Your task to perform on an android device: turn off location history Image 0: 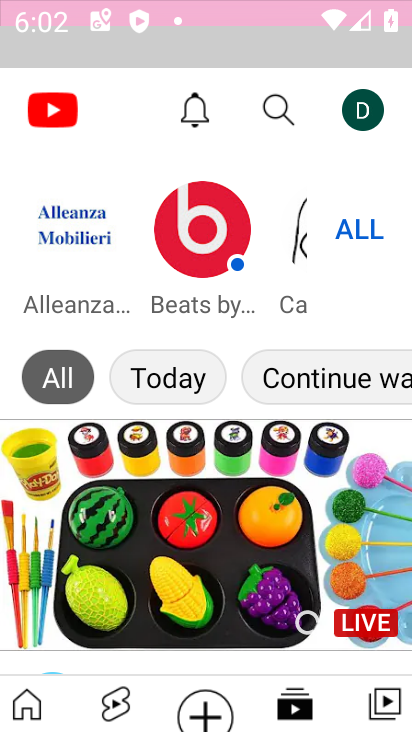
Step 0: drag from (210, 532) to (206, 84)
Your task to perform on an android device: turn off location history Image 1: 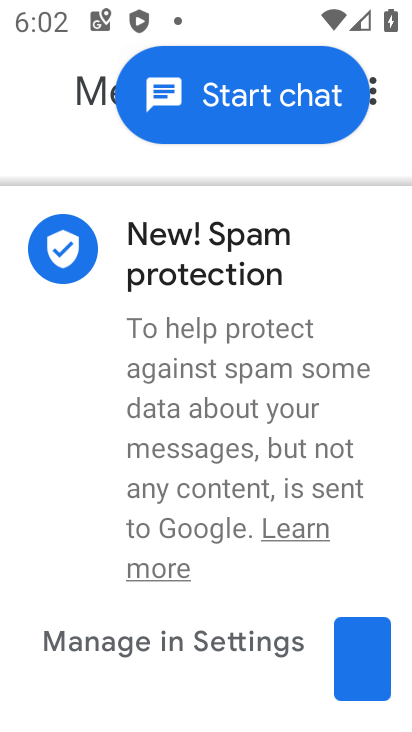
Step 1: press home button
Your task to perform on an android device: turn off location history Image 2: 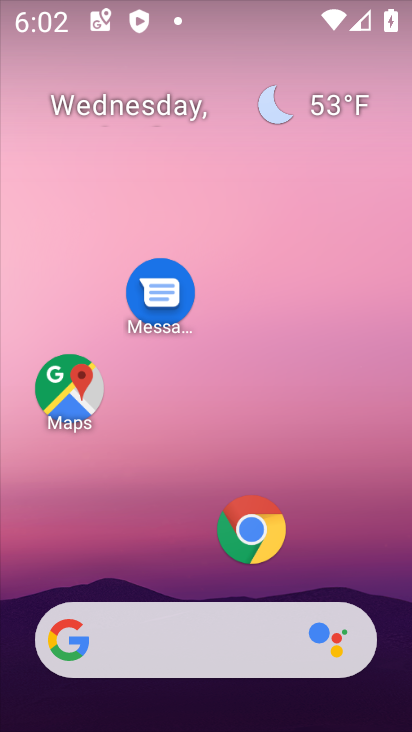
Step 2: drag from (183, 574) to (184, 166)
Your task to perform on an android device: turn off location history Image 3: 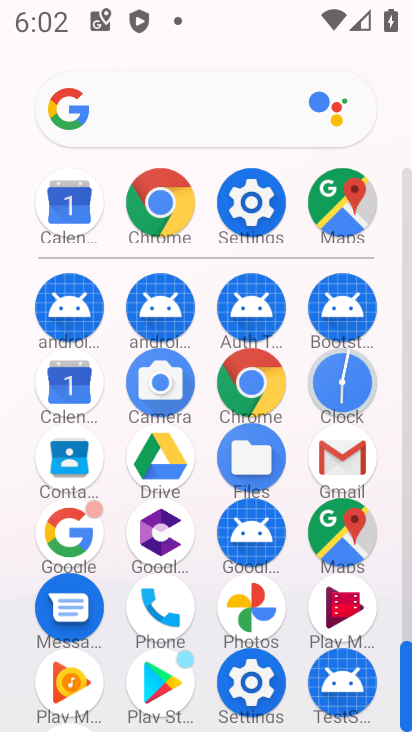
Step 3: click (254, 216)
Your task to perform on an android device: turn off location history Image 4: 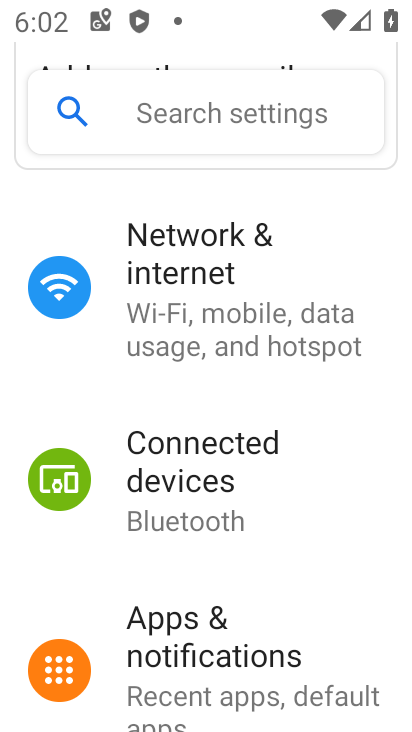
Step 4: drag from (247, 530) to (245, 181)
Your task to perform on an android device: turn off location history Image 5: 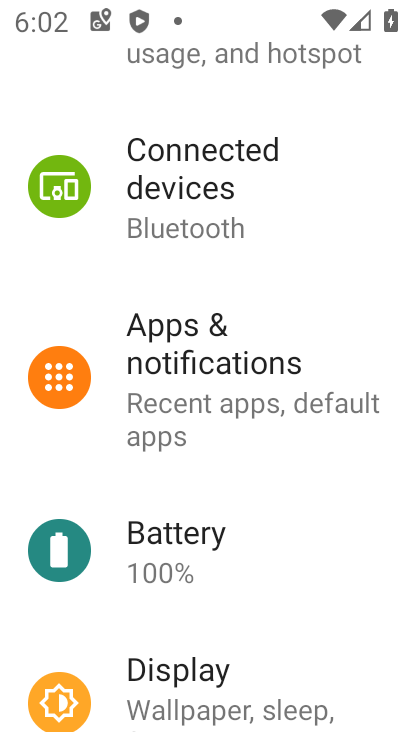
Step 5: drag from (243, 607) to (208, 234)
Your task to perform on an android device: turn off location history Image 6: 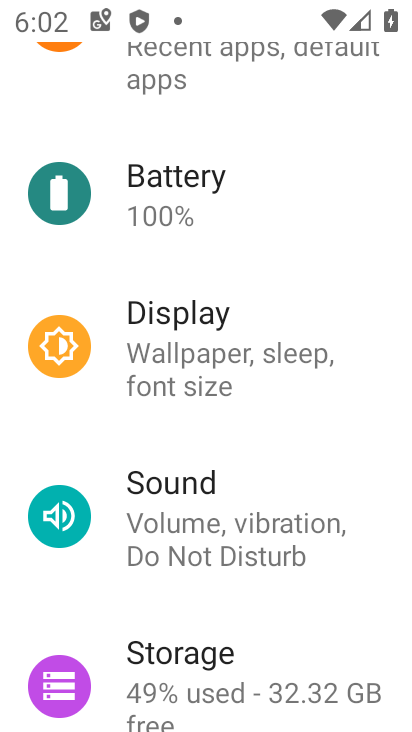
Step 6: drag from (225, 610) to (228, 281)
Your task to perform on an android device: turn off location history Image 7: 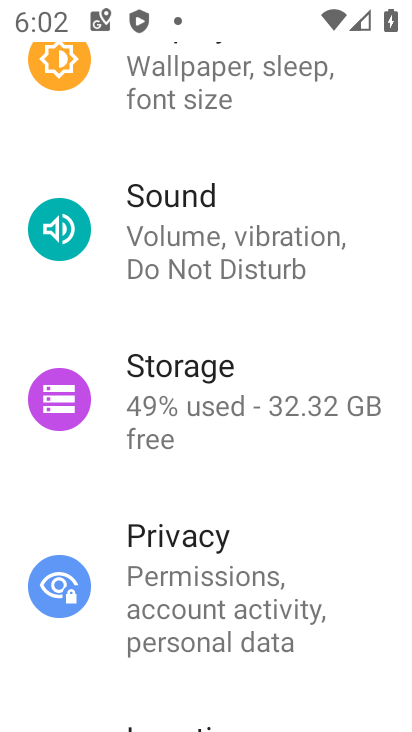
Step 7: drag from (193, 608) to (190, 247)
Your task to perform on an android device: turn off location history Image 8: 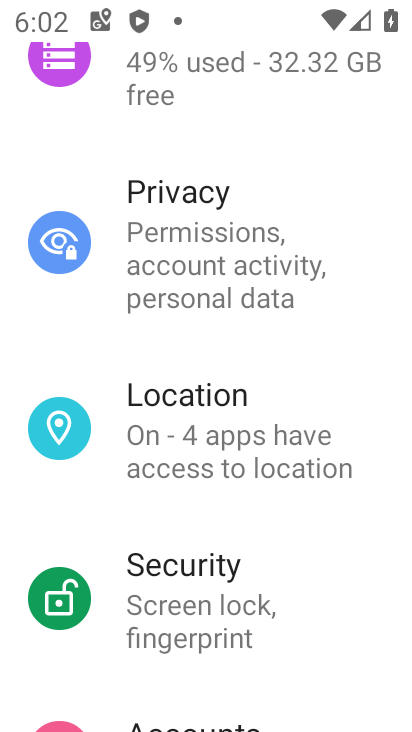
Step 8: click (213, 445)
Your task to perform on an android device: turn off location history Image 9: 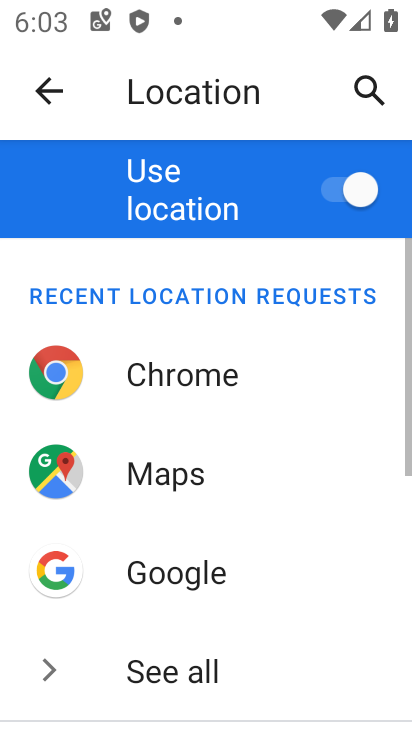
Step 9: drag from (213, 634) to (246, 364)
Your task to perform on an android device: turn off location history Image 10: 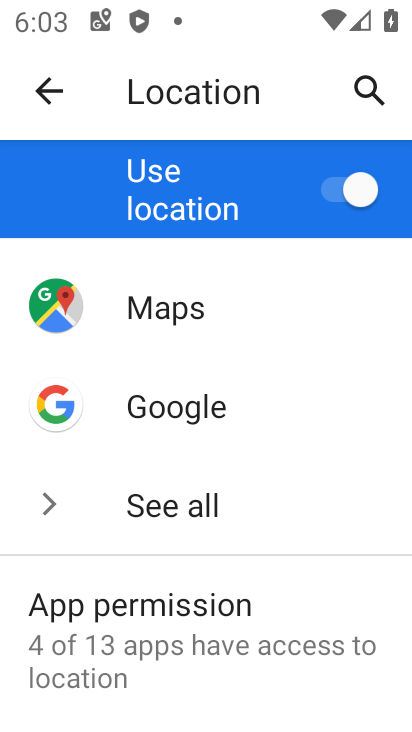
Step 10: drag from (223, 604) to (224, 249)
Your task to perform on an android device: turn off location history Image 11: 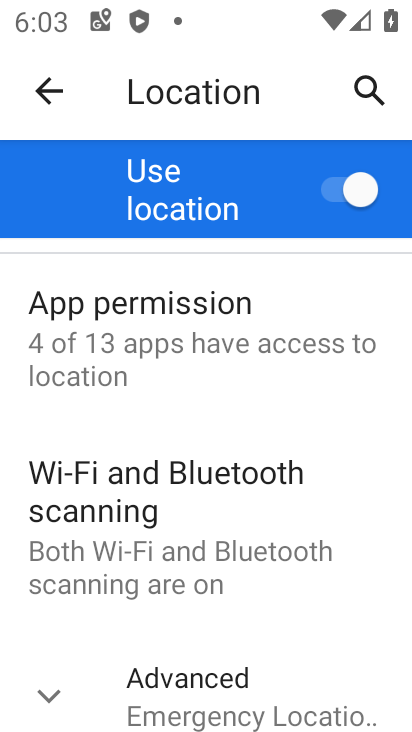
Step 11: drag from (216, 630) to (215, 254)
Your task to perform on an android device: turn off location history Image 12: 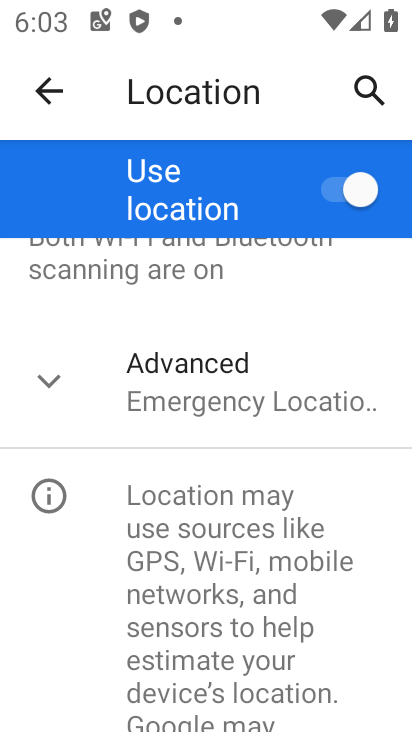
Step 12: click (178, 390)
Your task to perform on an android device: turn off location history Image 13: 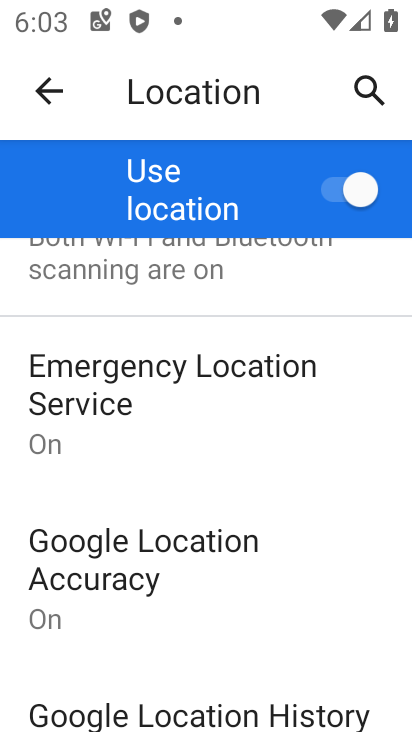
Step 13: drag from (194, 615) to (203, 312)
Your task to perform on an android device: turn off location history Image 14: 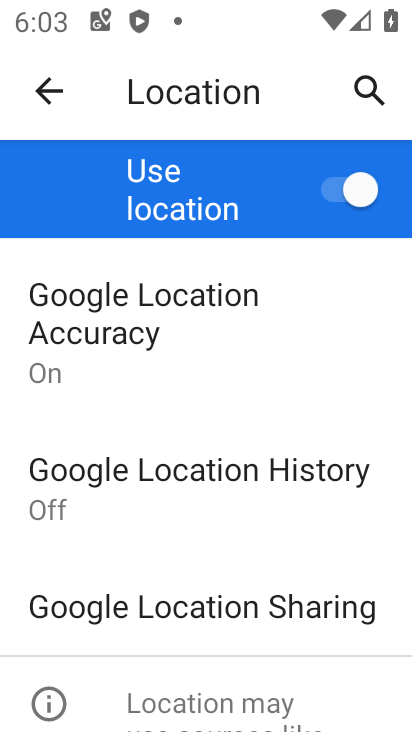
Step 14: click (220, 479)
Your task to perform on an android device: turn off location history Image 15: 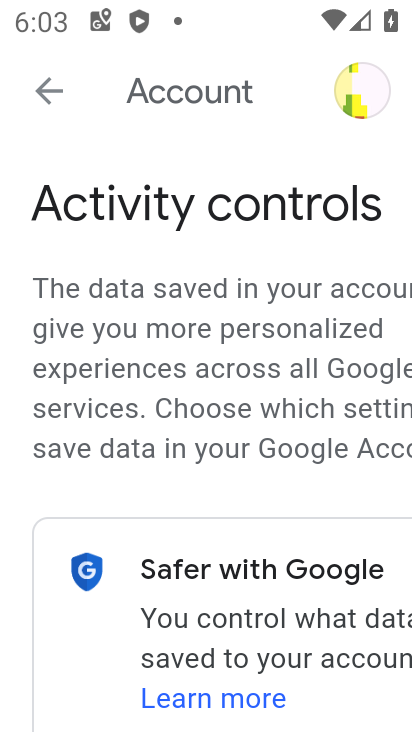
Step 15: drag from (256, 539) to (256, 260)
Your task to perform on an android device: turn off location history Image 16: 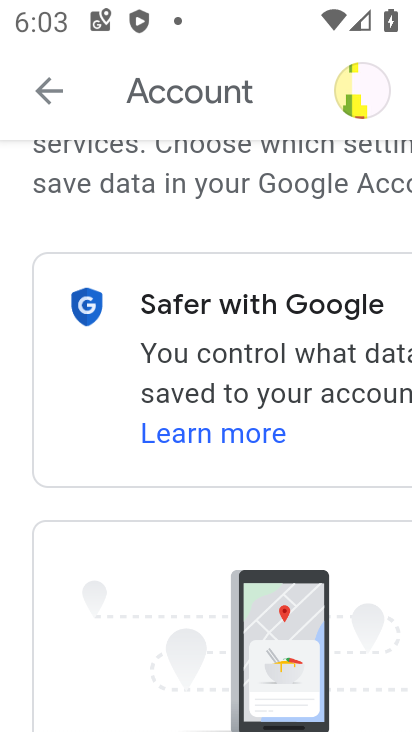
Step 16: drag from (267, 516) to (271, 250)
Your task to perform on an android device: turn off location history Image 17: 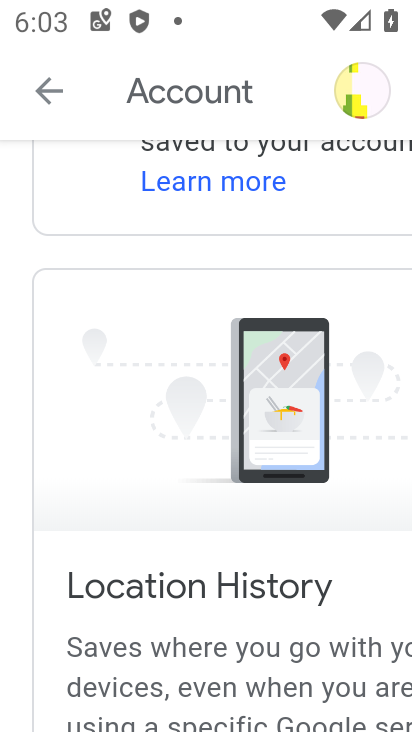
Step 17: drag from (265, 610) to (277, 242)
Your task to perform on an android device: turn off location history Image 18: 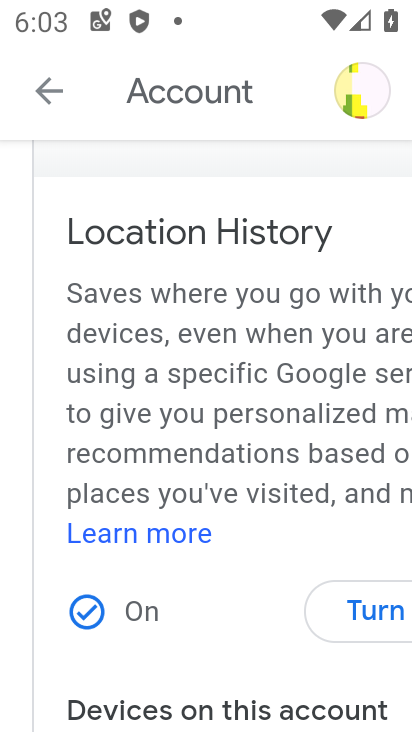
Step 18: click (361, 623)
Your task to perform on an android device: turn off location history Image 19: 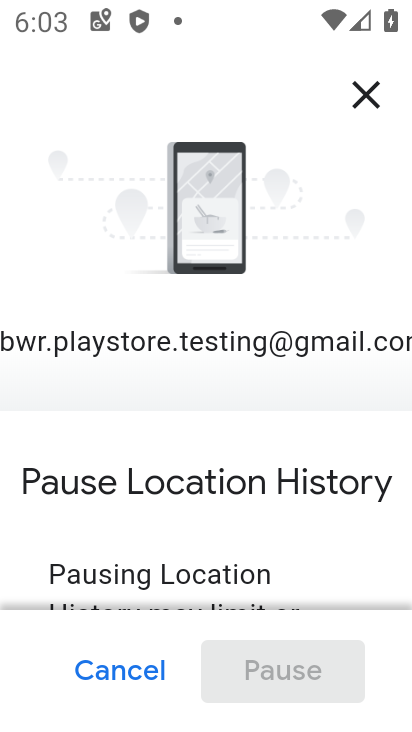
Step 19: drag from (291, 543) to (290, 234)
Your task to perform on an android device: turn off location history Image 20: 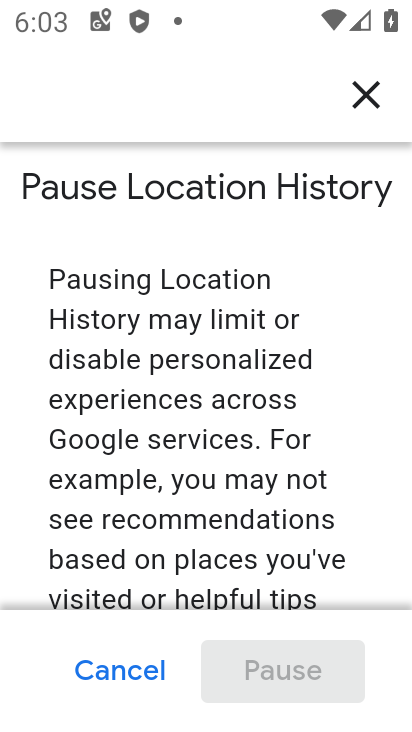
Step 20: drag from (319, 527) to (299, 154)
Your task to perform on an android device: turn off location history Image 21: 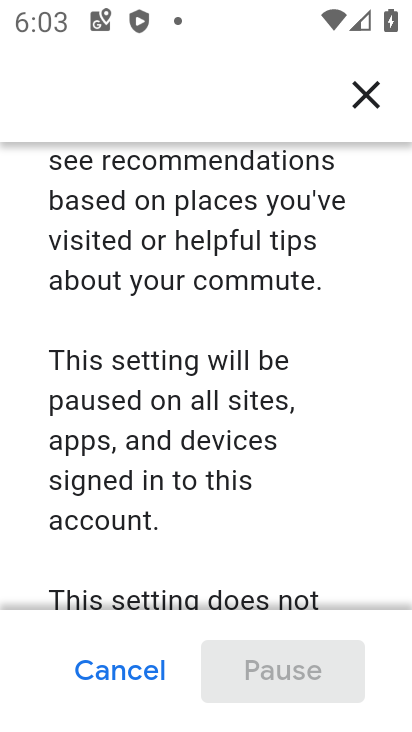
Step 21: drag from (251, 505) to (250, 21)
Your task to perform on an android device: turn off location history Image 22: 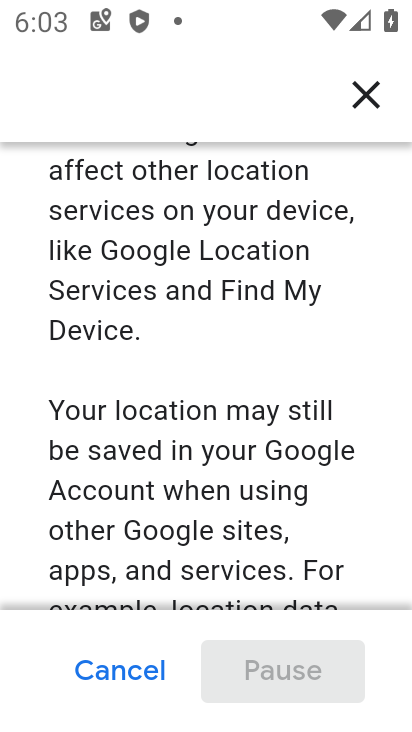
Step 22: drag from (261, 378) to (182, 32)
Your task to perform on an android device: turn off location history Image 23: 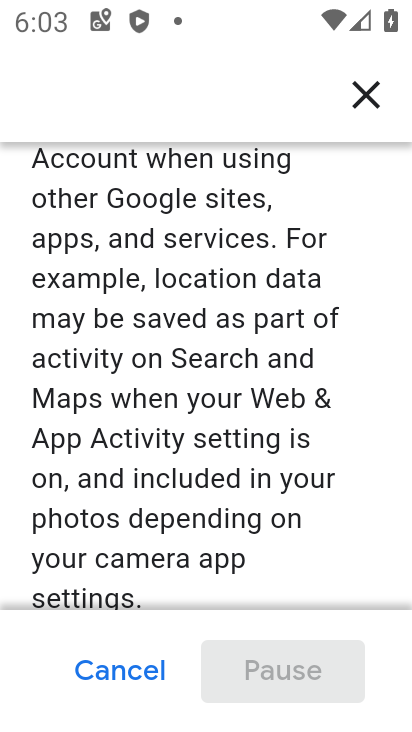
Step 23: drag from (254, 488) to (201, 20)
Your task to perform on an android device: turn off location history Image 24: 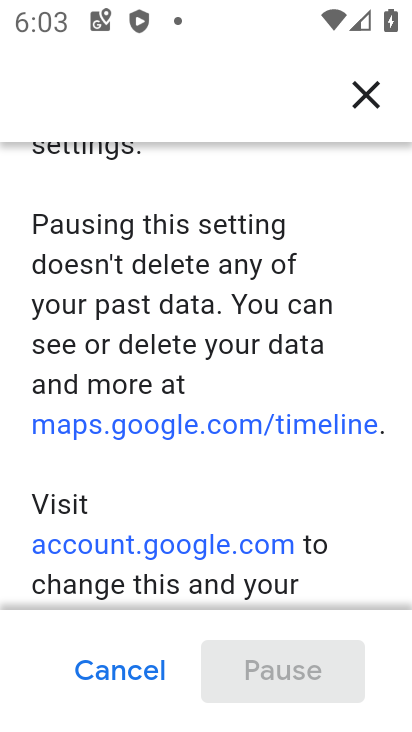
Step 24: drag from (234, 490) to (189, 6)
Your task to perform on an android device: turn off location history Image 25: 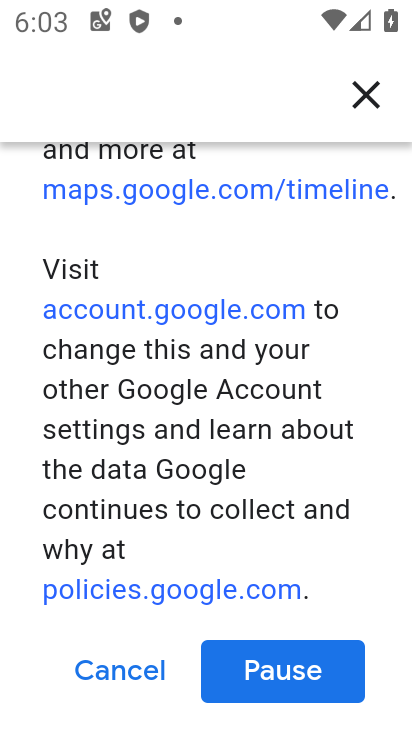
Step 25: click (269, 667)
Your task to perform on an android device: turn off location history Image 26: 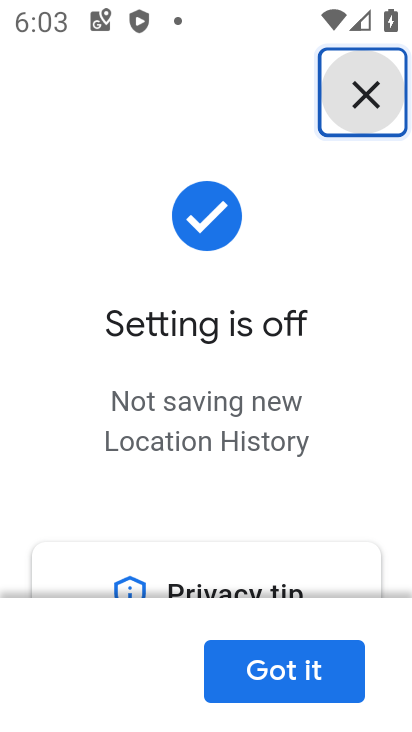
Step 26: click (284, 681)
Your task to perform on an android device: turn off location history Image 27: 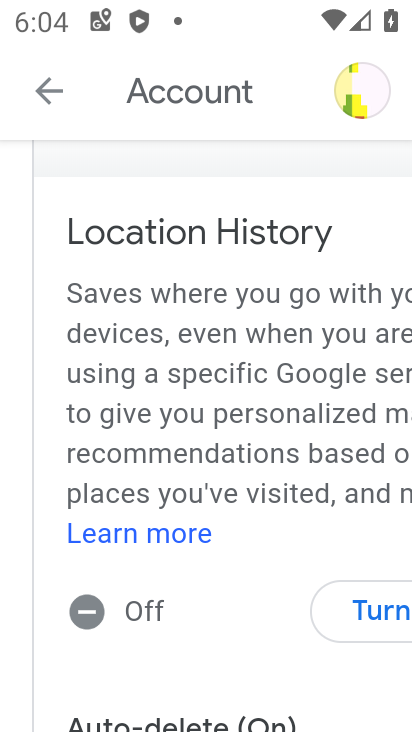
Step 27: task complete